Your task to perform on an android device: open device folders in google photos Image 0: 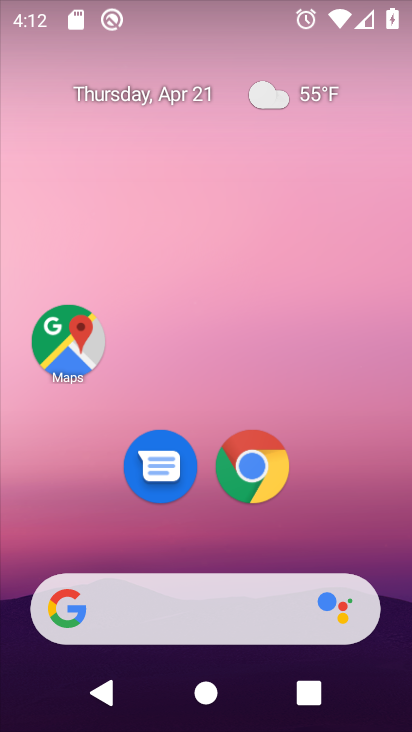
Step 0: drag from (224, 563) to (272, 91)
Your task to perform on an android device: open device folders in google photos Image 1: 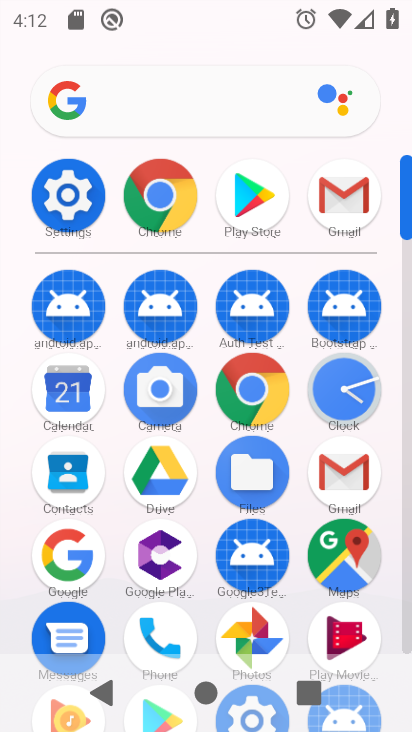
Step 1: click (254, 622)
Your task to perform on an android device: open device folders in google photos Image 2: 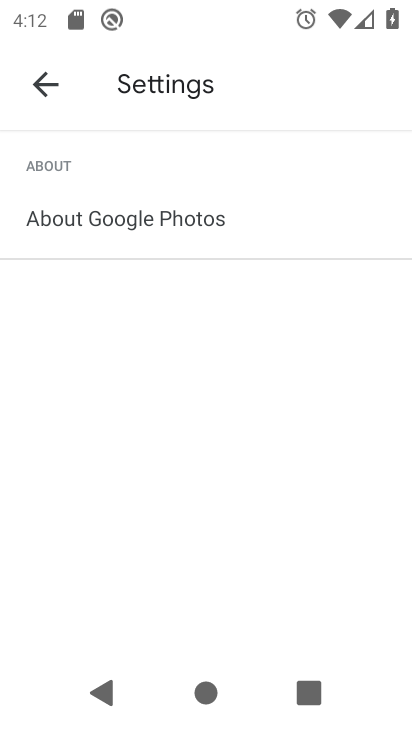
Step 2: click (53, 93)
Your task to perform on an android device: open device folders in google photos Image 3: 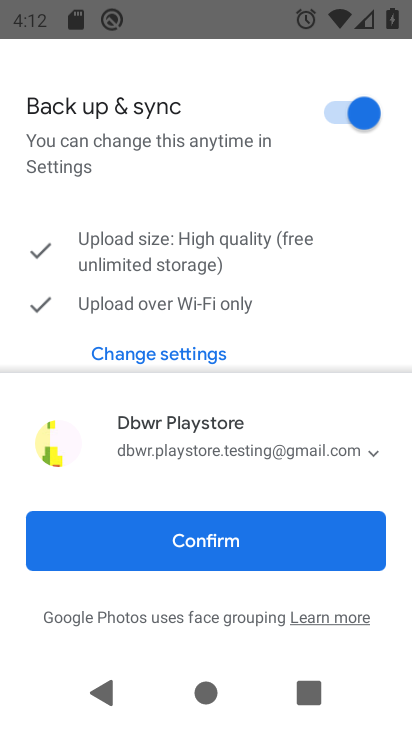
Step 3: click (219, 537)
Your task to perform on an android device: open device folders in google photos Image 4: 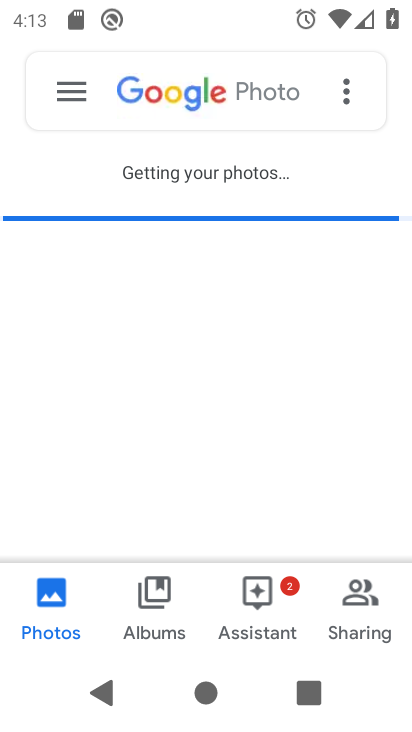
Step 4: click (61, 92)
Your task to perform on an android device: open device folders in google photos Image 5: 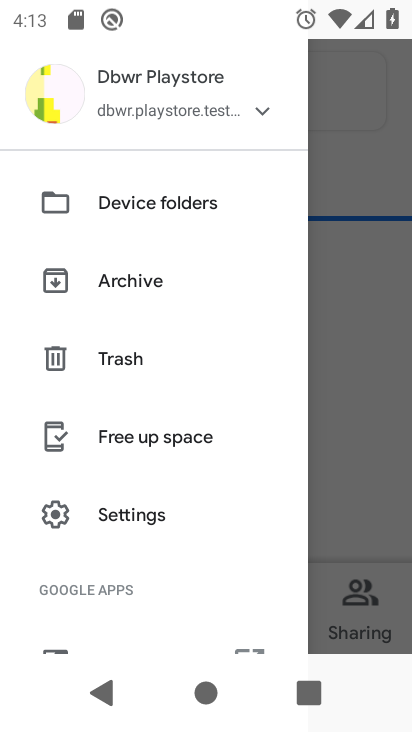
Step 5: click (153, 200)
Your task to perform on an android device: open device folders in google photos Image 6: 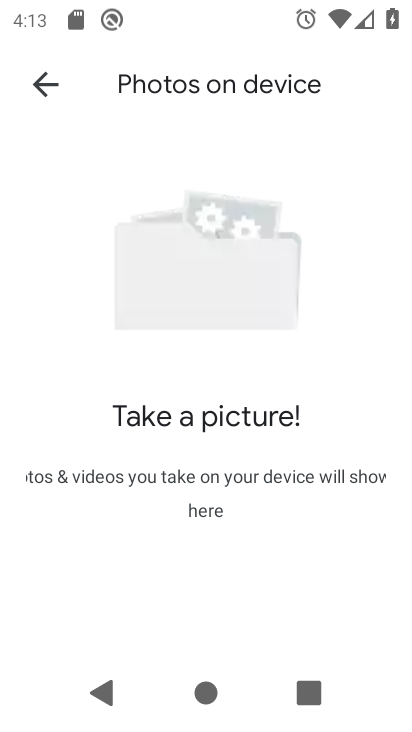
Step 6: task complete